Your task to perform on an android device: Open Google Chrome and open the bookmarks view Image 0: 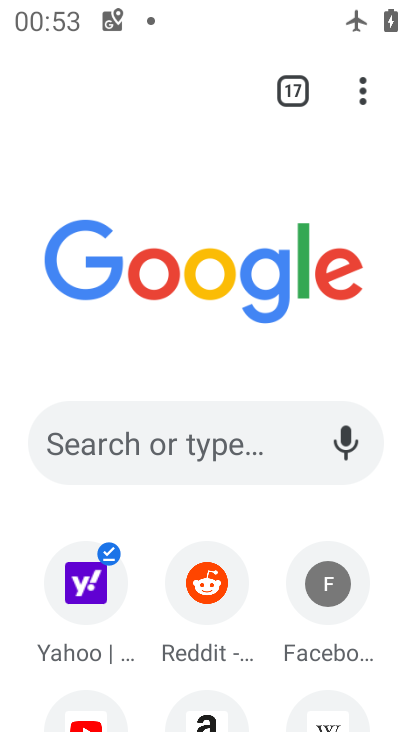
Step 0: click (338, 89)
Your task to perform on an android device: Open Google Chrome and open the bookmarks view Image 1: 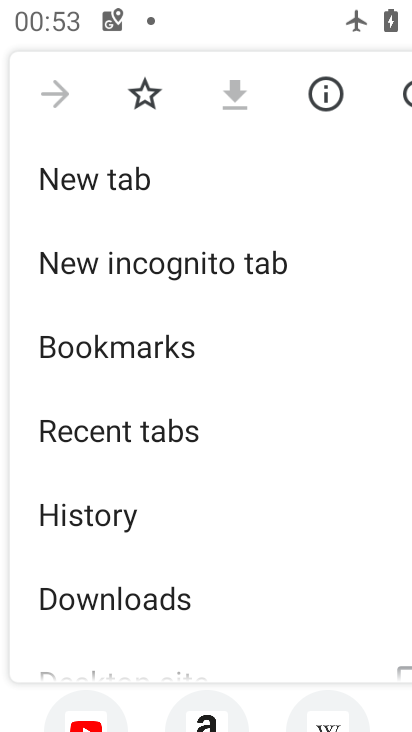
Step 1: click (160, 337)
Your task to perform on an android device: Open Google Chrome and open the bookmarks view Image 2: 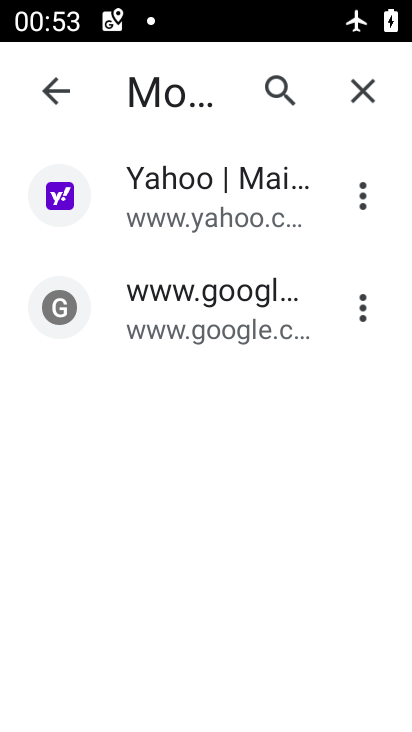
Step 2: task complete